Your task to perform on an android device: change the upload size in google photos Image 0: 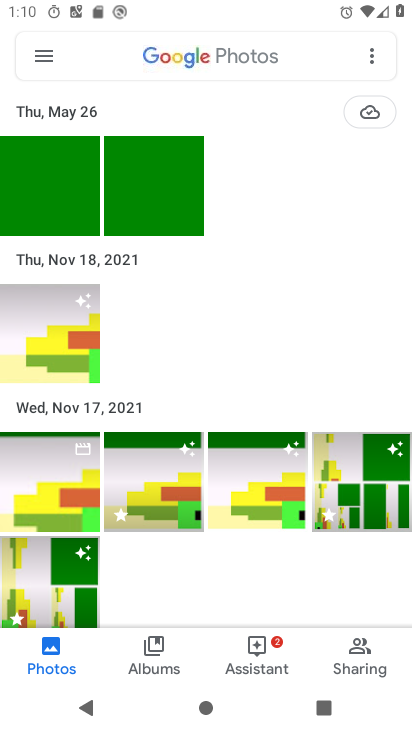
Step 0: press home button
Your task to perform on an android device: change the upload size in google photos Image 1: 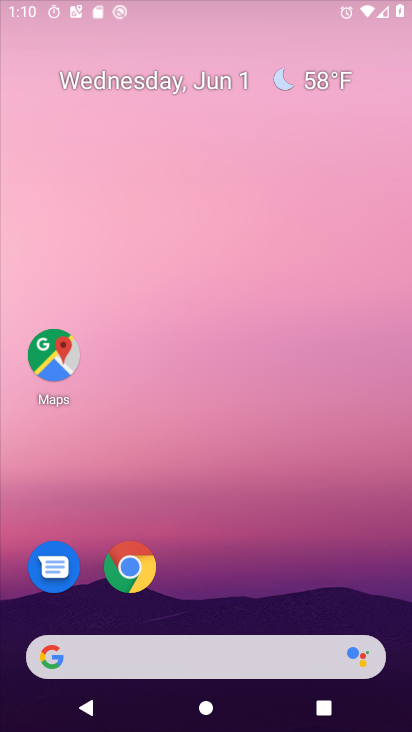
Step 1: drag from (249, 499) to (262, 105)
Your task to perform on an android device: change the upload size in google photos Image 2: 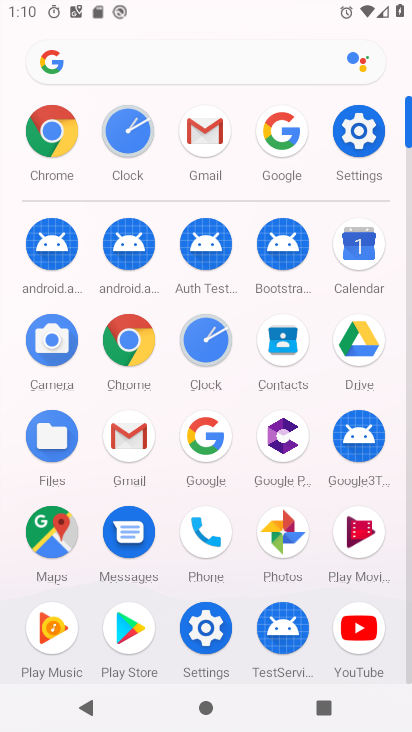
Step 2: click (281, 544)
Your task to perform on an android device: change the upload size in google photos Image 3: 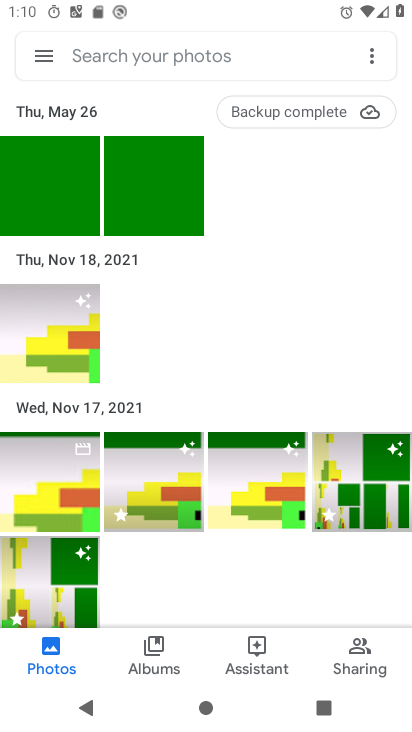
Step 3: click (58, 54)
Your task to perform on an android device: change the upload size in google photos Image 4: 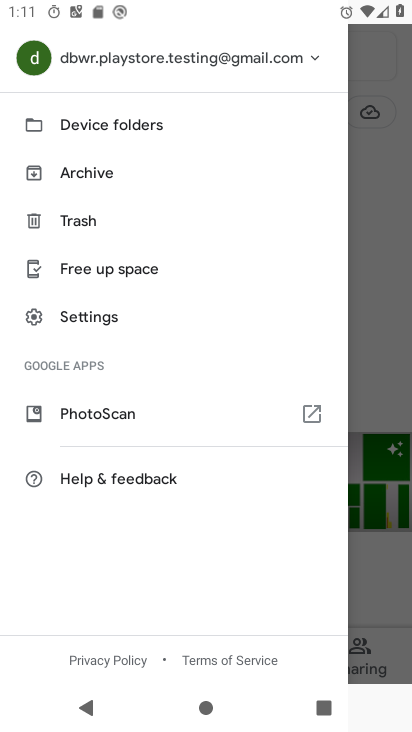
Step 4: click (101, 328)
Your task to perform on an android device: change the upload size in google photos Image 5: 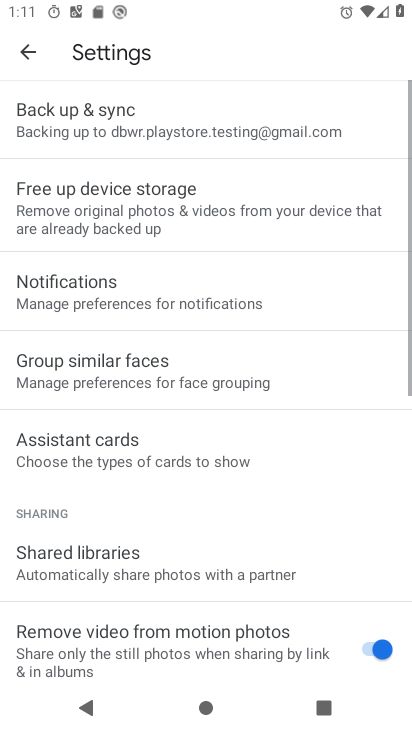
Step 5: click (107, 136)
Your task to perform on an android device: change the upload size in google photos Image 6: 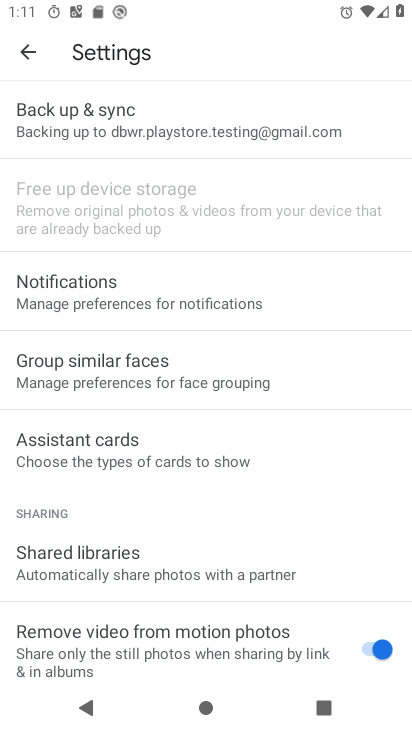
Step 6: click (72, 115)
Your task to perform on an android device: change the upload size in google photos Image 7: 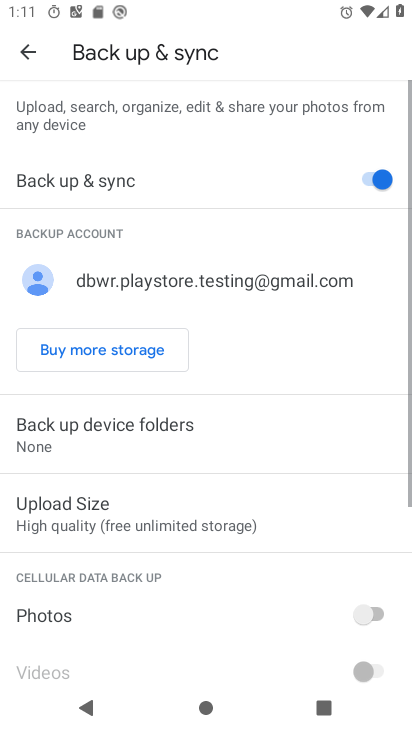
Step 7: click (116, 516)
Your task to perform on an android device: change the upload size in google photos Image 8: 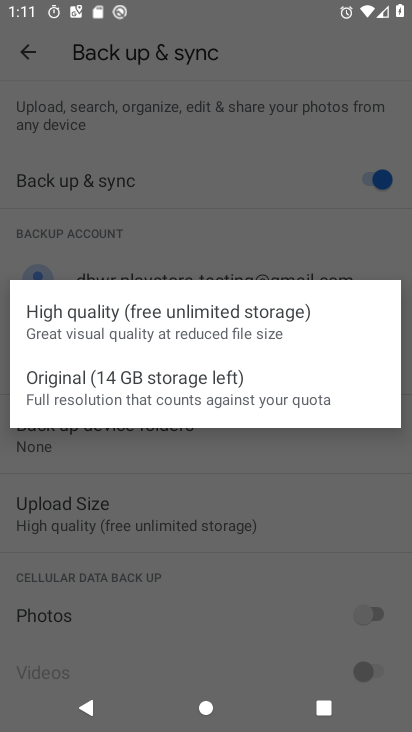
Step 8: click (80, 399)
Your task to perform on an android device: change the upload size in google photos Image 9: 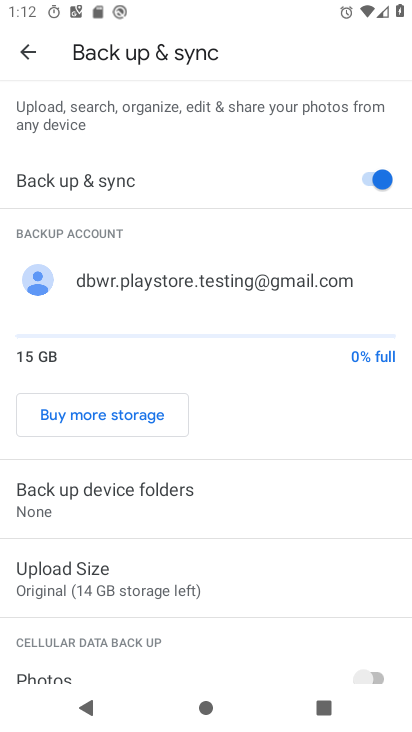
Step 9: task complete